Your task to perform on an android device: turn pop-ups on in chrome Image 0: 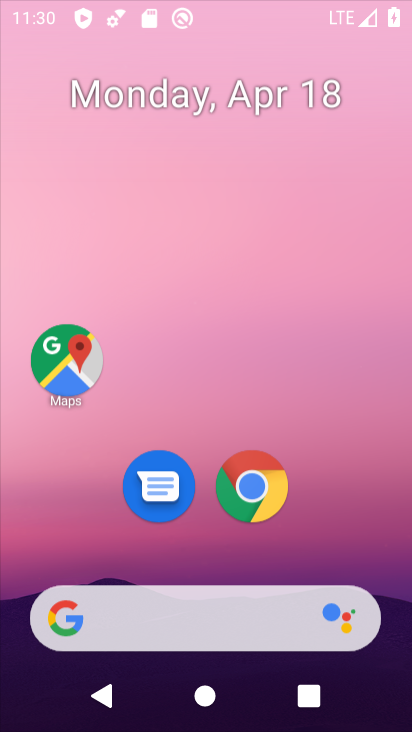
Step 0: drag from (182, 357) to (232, 17)
Your task to perform on an android device: turn pop-ups on in chrome Image 1: 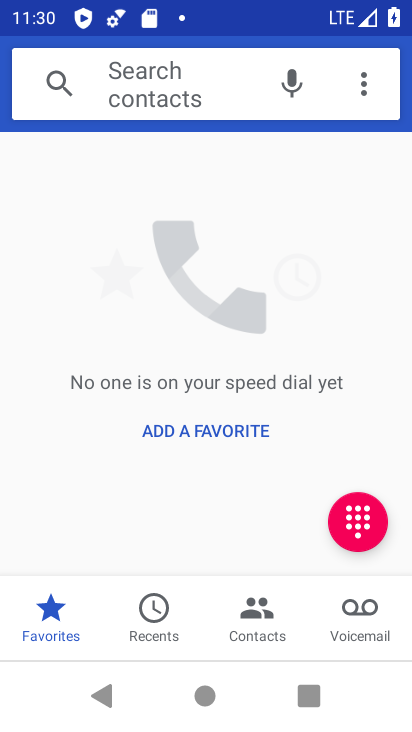
Step 1: press home button
Your task to perform on an android device: turn pop-ups on in chrome Image 2: 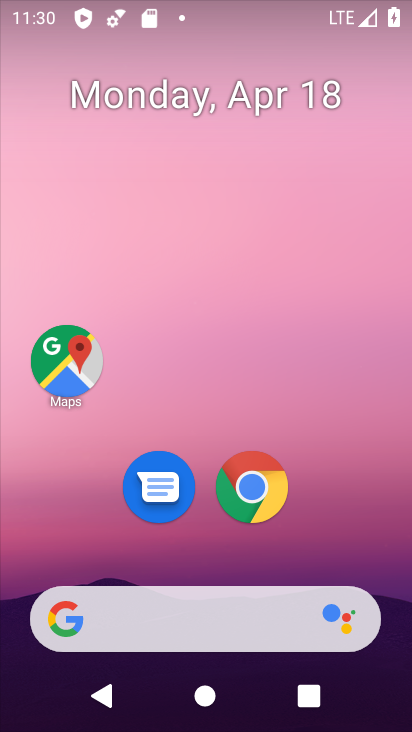
Step 2: click (257, 494)
Your task to perform on an android device: turn pop-ups on in chrome Image 3: 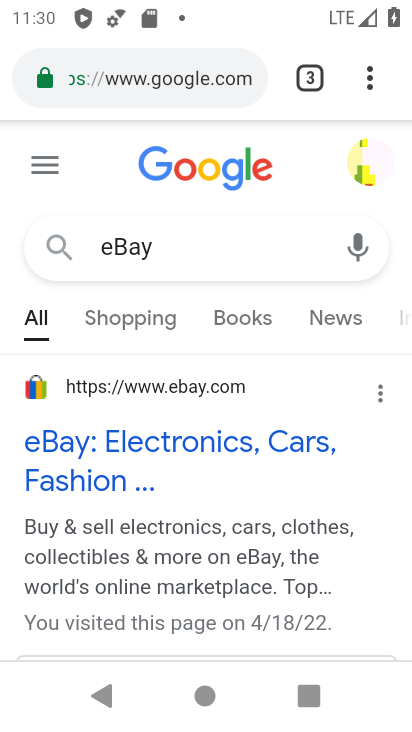
Step 3: click (367, 74)
Your task to perform on an android device: turn pop-ups on in chrome Image 4: 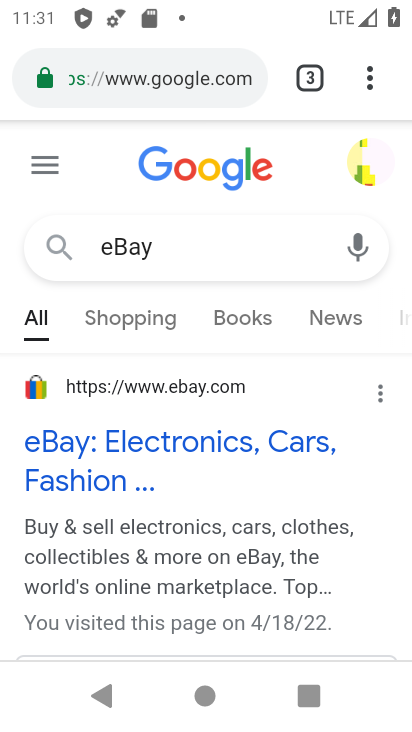
Step 4: click (367, 74)
Your task to perform on an android device: turn pop-ups on in chrome Image 5: 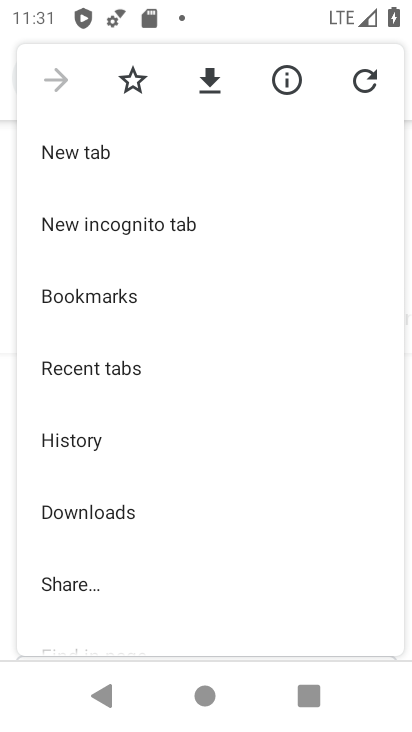
Step 5: drag from (135, 565) to (122, 138)
Your task to perform on an android device: turn pop-ups on in chrome Image 6: 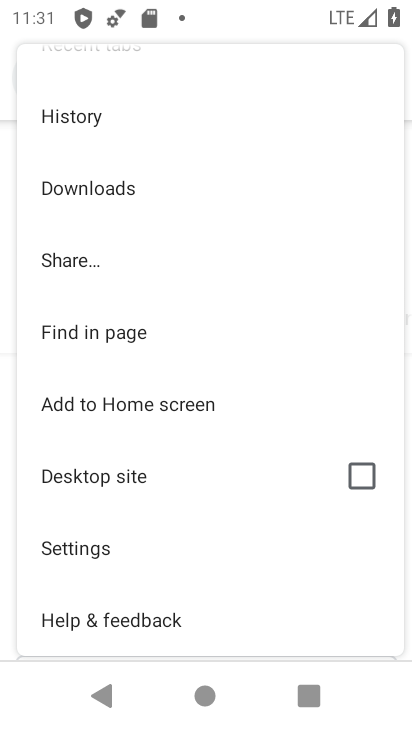
Step 6: click (68, 541)
Your task to perform on an android device: turn pop-ups on in chrome Image 7: 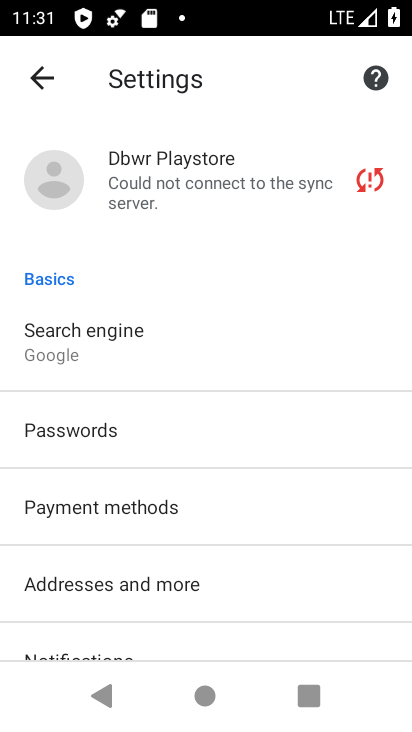
Step 7: drag from (206, 605) to (128, 157)
Your task to perform on an android device: turn pop-ups on in chrome Image 8: 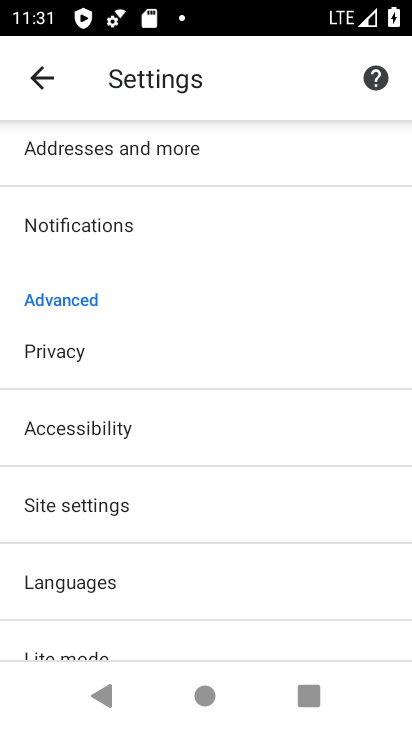
Step 8: click (93, 507)
Your task to perform on an android device: turn pop-ups on in chrome Image 9: 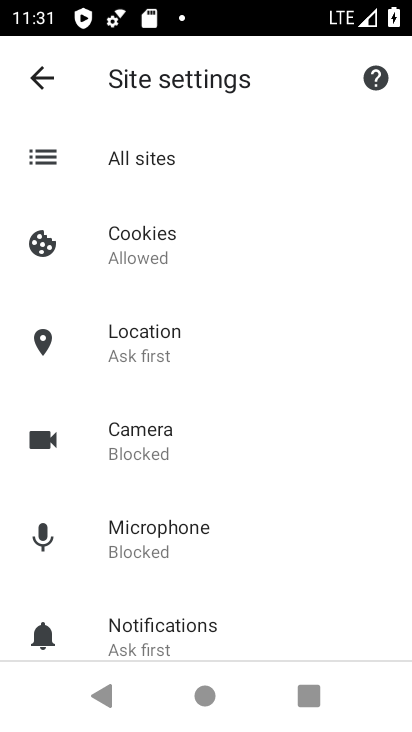
Step 9: drag from (223, 600) to (189, 264)
Your task to perform on an android device: turn pop-ups on in chrome Image 10: 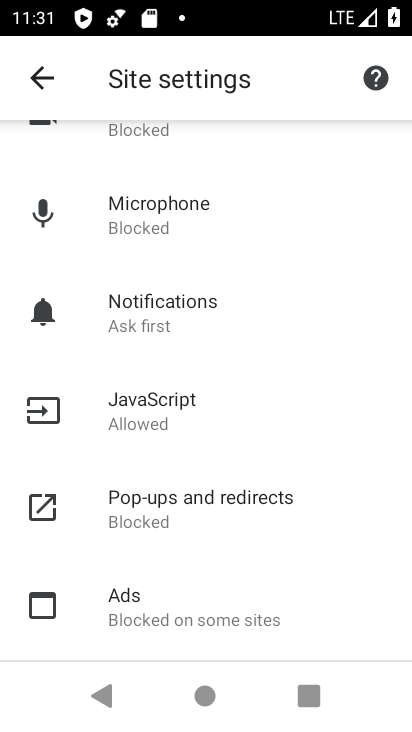
Step 10: click (156, 501)
Your task to perform on an android device: turn pop-ups on in chrome Image 11: 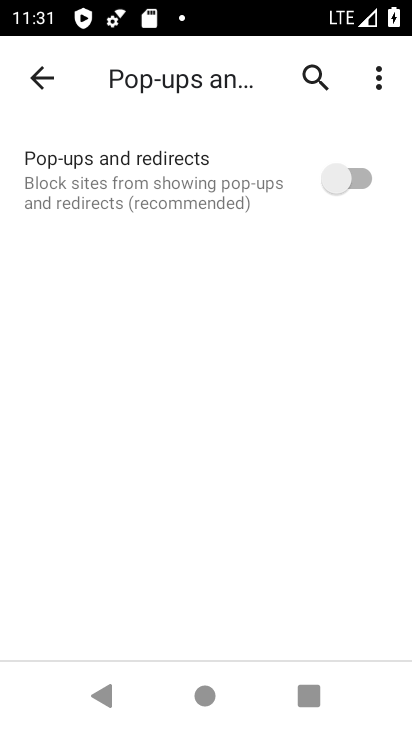
Step 11: click (333, 169)
Your task to perform on an android device: turn pop-ups on in chrome Image 12: 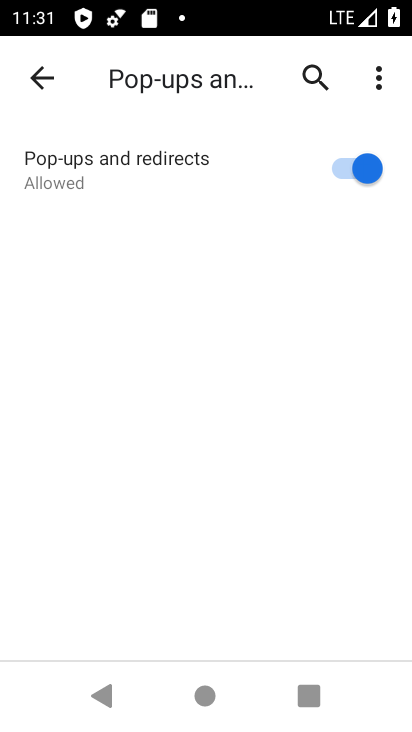
Step 12: task complete